Your task to perform on an android device: toggle notification dots Image 0: 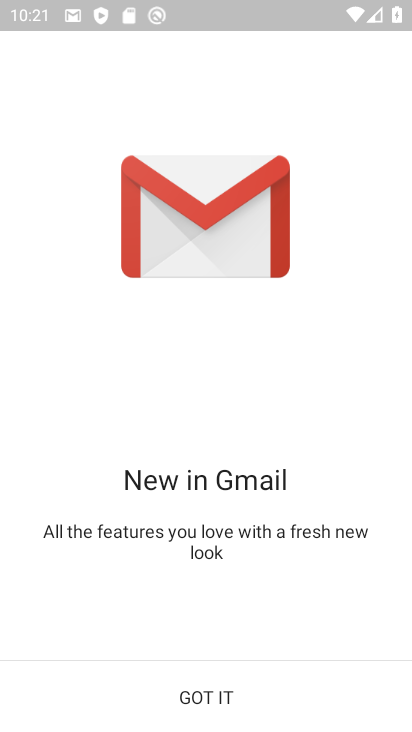
Step 0: press home button
Your task to perform on an android device: toggle notification dots Image 1: 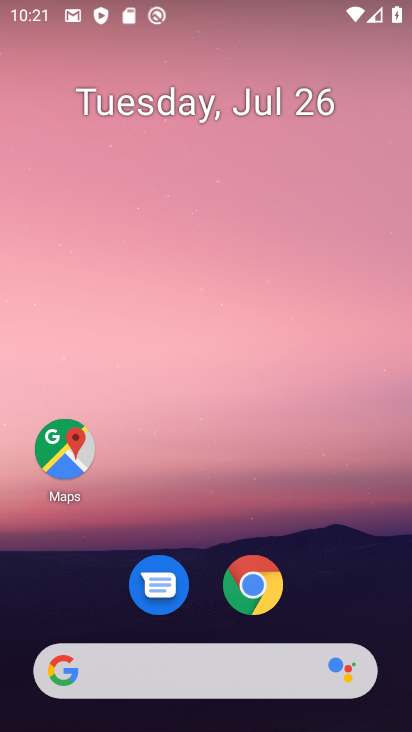
Step 1: drag from (240, 394) to (328, 138)
Your task to perform on an android device: toggle notification dots Image 2: 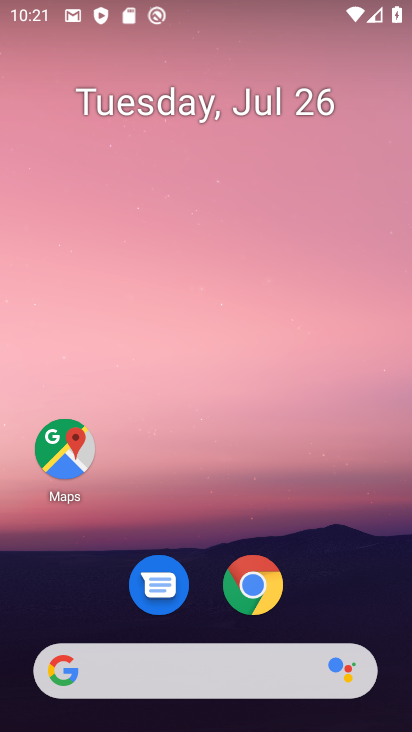
Step 2: drag from (178, 543) to (139, 227)
Your task to perform on an android device: toggle notification dots Image 3: 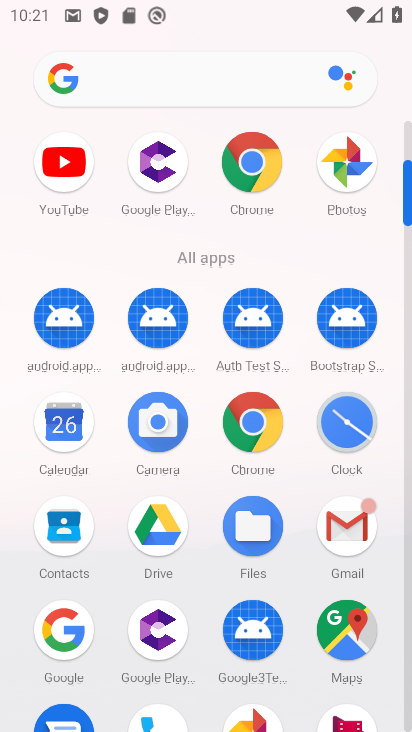
Step 3: drag from (191, 558) to (183, 240)
Your task to perform on an android device: toggle notification dots Image 4: 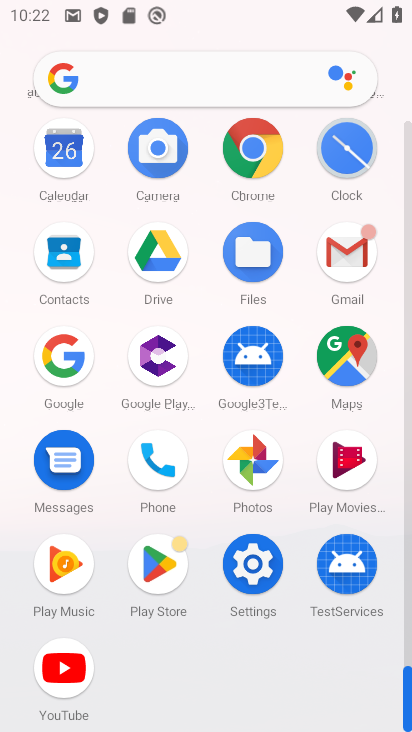
Step 4: click (248, 581)
Your task to perform on an android device: toggle notification dots Image 5: 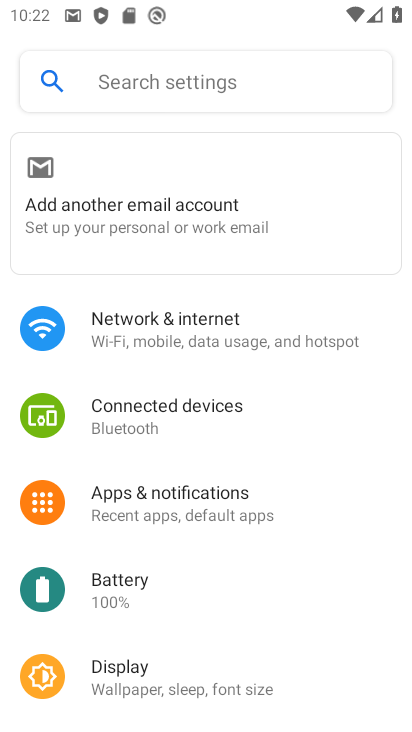
Step 5: drag from (293, 646) to (231, 390)
Your task to perform on an android device: toggle notification dots Image 6: 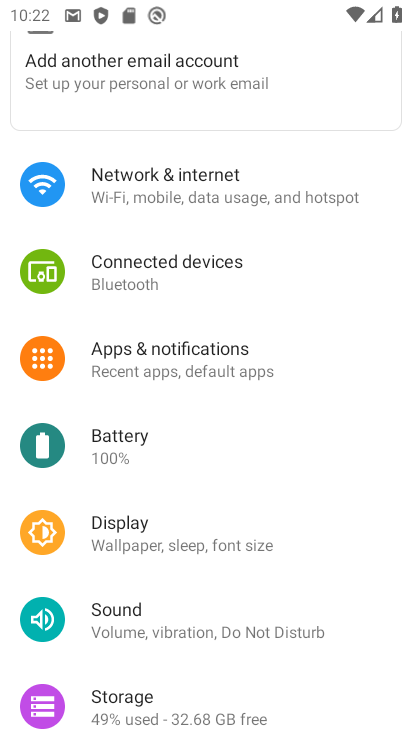
Step 6: drag from (304, 639) to (289, 406)
Your task to perform on an android device: toggle notification dots Image 7: 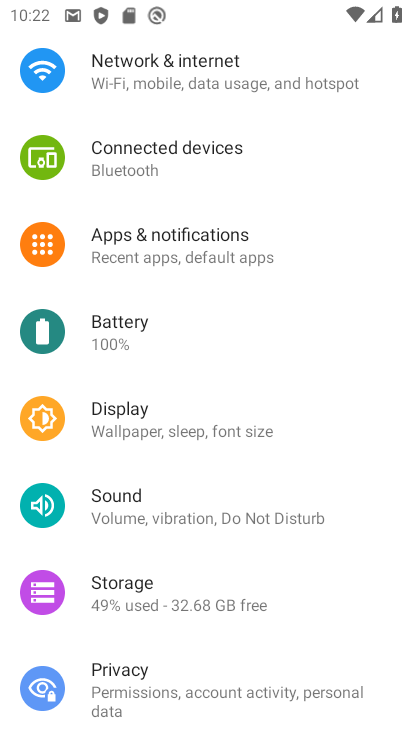
Step 7: drag from (301, 628) to (303, 383)
Your task to perform on an android device: toggle notification dots Image 8: 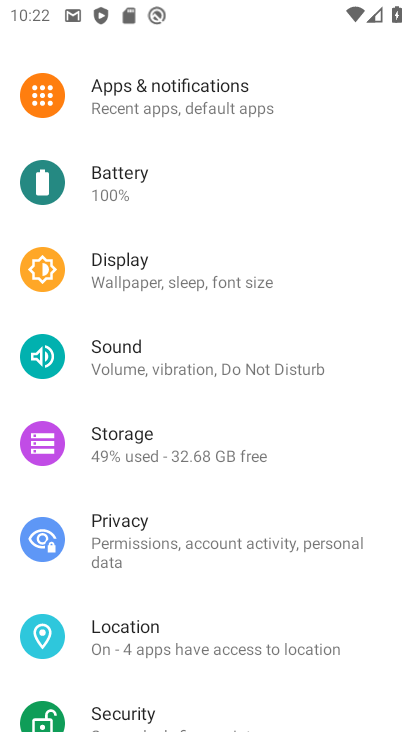
Step 8: drag from (268, 672) to (232, 438)
Your task to perform on an android device: toggle notification dots Image 9: 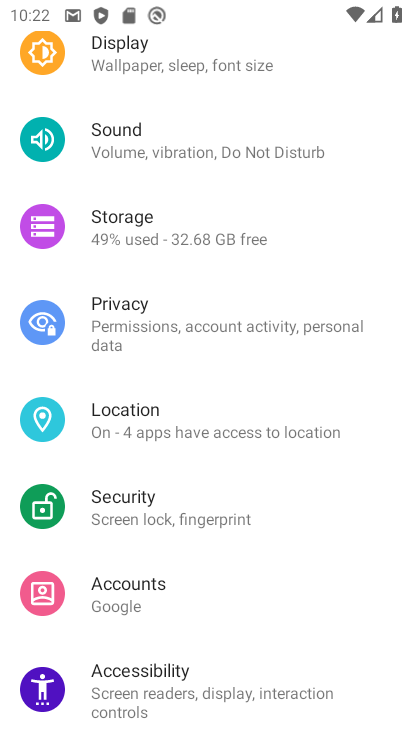
Step 9: drag from (288, 383) to (292, 574)
Your task to perform on an android device: toggle notification dots Image 10: 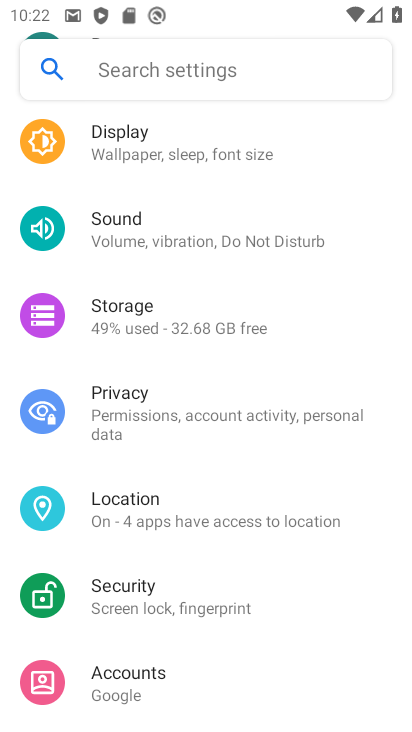
Step 10: drag from (311, 257) to (303, 523)
Your task to perform on an android device: toggle notification dots Image 11: 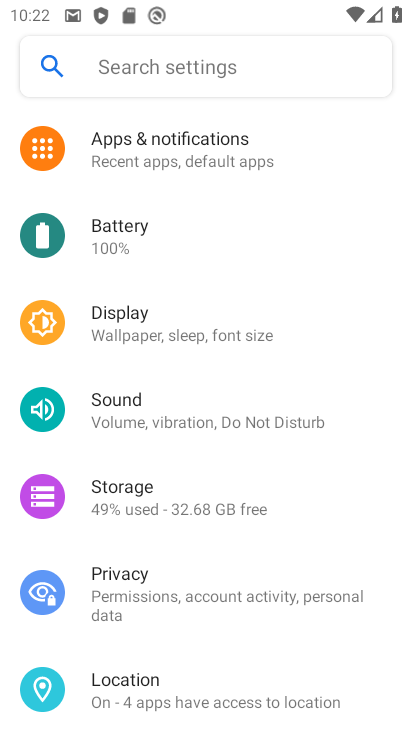
Step 11: drag from (305, 291) to (294, 470)
Your task to perform on an android device: toggle notification dots Image 12: 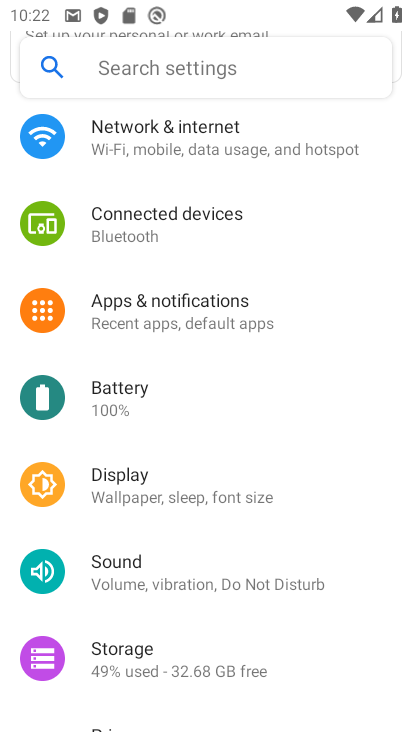
Step 12: click (166, 321)
Your task to perform on an android device: toggle notification dots Image 13: 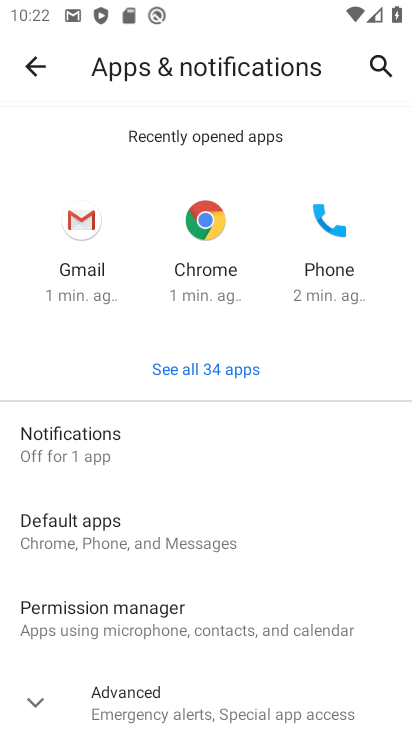
Step 13: click (81, 441)
Your task to perform on an android device: toggle notification dots Image 14: 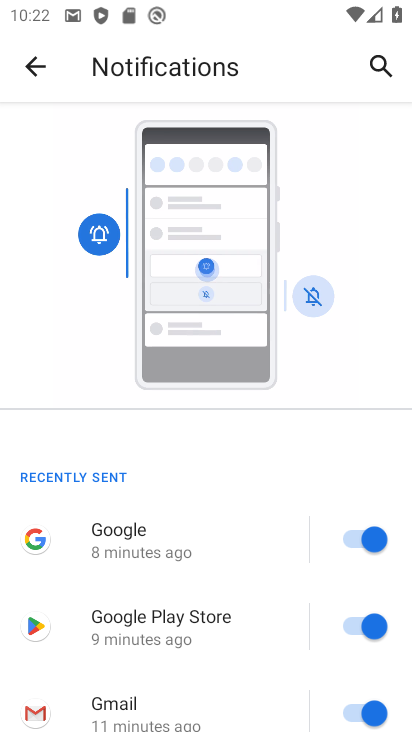
Step 14: click (162, 700)
Your task to perform on an android device: toggle notification dots Image 15: 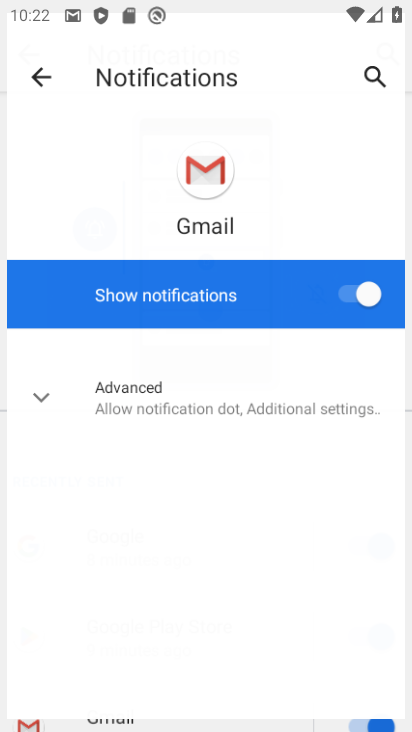
Step 15: drag from (228, 667) to (281, 425)
Your task to perform on an android device: toggle notification dots Image 16: 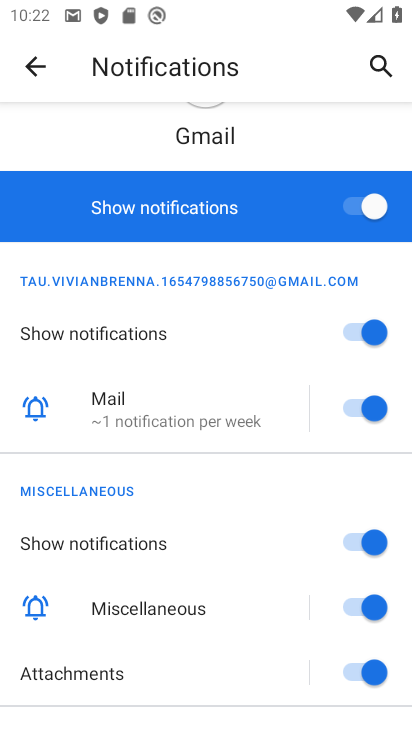
Step 16: drag from (284, 657) to (270, 163)
Your task to perform on an android device: toggle notification dots Image 17: 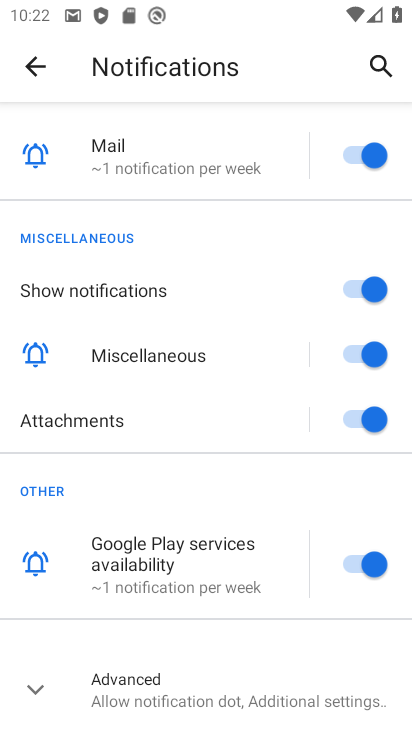
Step 17: click (30, 690)
Your task to perform on an android device: toggle notification dots Image 18: 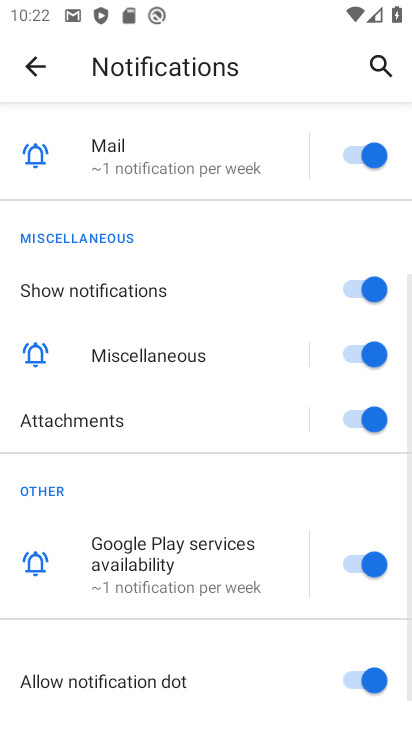
Step 18: drag from (279, 668) to (227, 351)
Your task to perform on an android device: toggle notification dots Image 19: 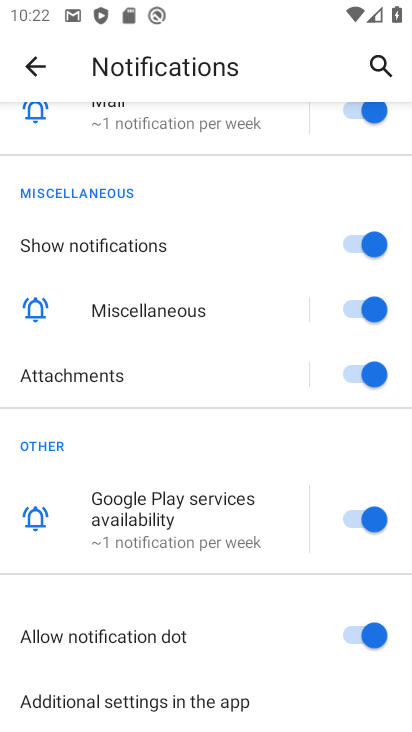
Step 19: click (364, 625)
Your task to perform on an android device: toggle notification dots Image 20: 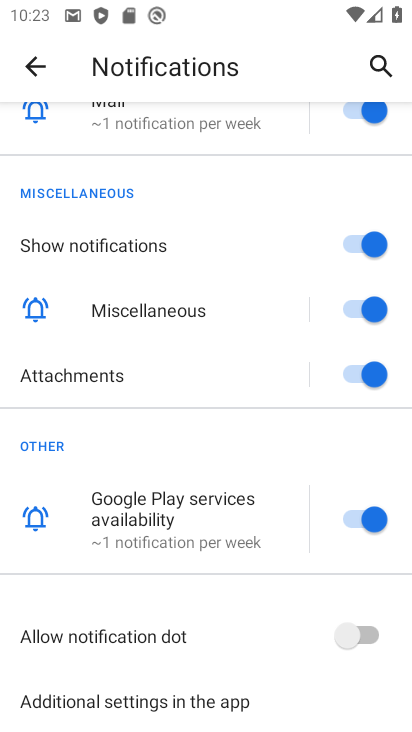
Step 20: task complete